Your task to perform on an android device: delete browsing data in the chrome app Image 0: 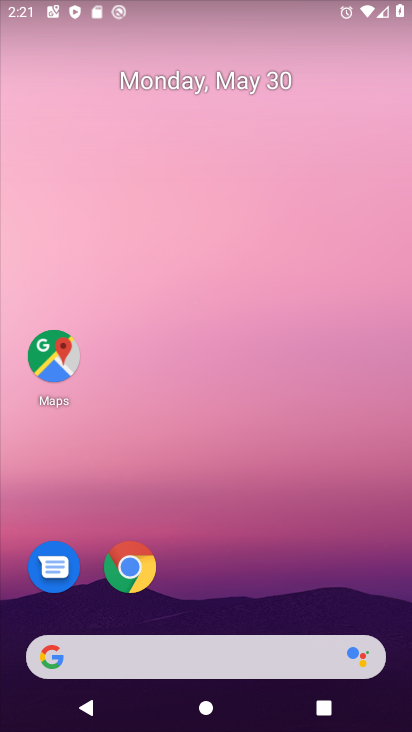
Step 0: click (129, 555)
Your task to perform on an android device: delete browsing data in the chrome app Image 1: 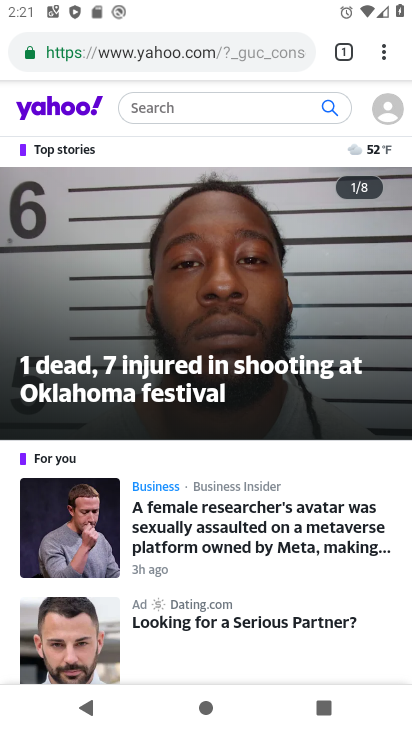
Step 1: click (384, 57)
Your task to perform on an android device: delete browsing data in the chrome app Image 2: 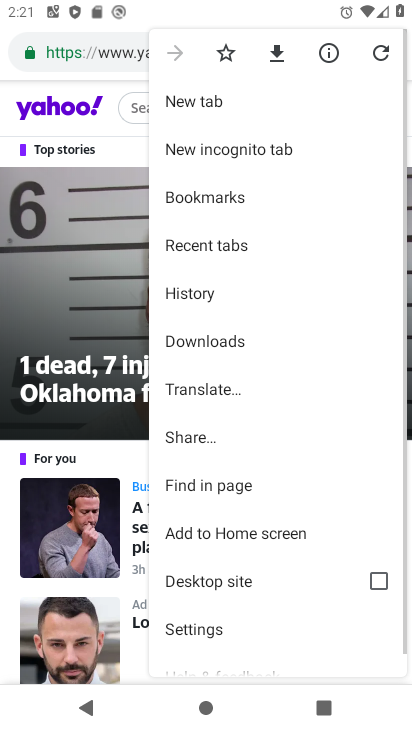
Step 2: click (195, 205)
Your task to perform on an android device: delete browsing data in the chrome app Image 3: 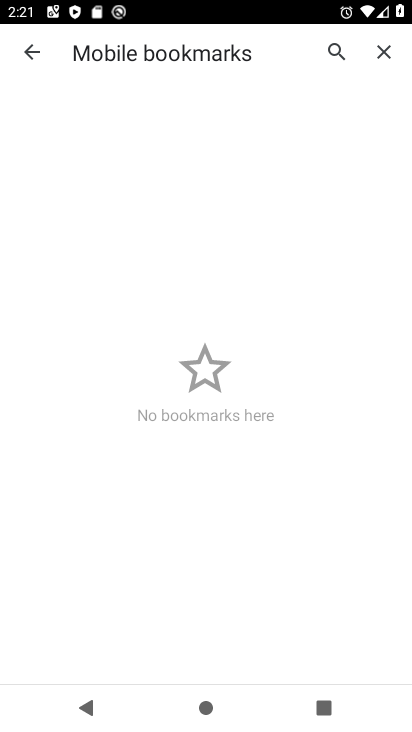
Step 3: task complete